Your task to perform on an android device: turn on the 24-hour format for clock Image 0: 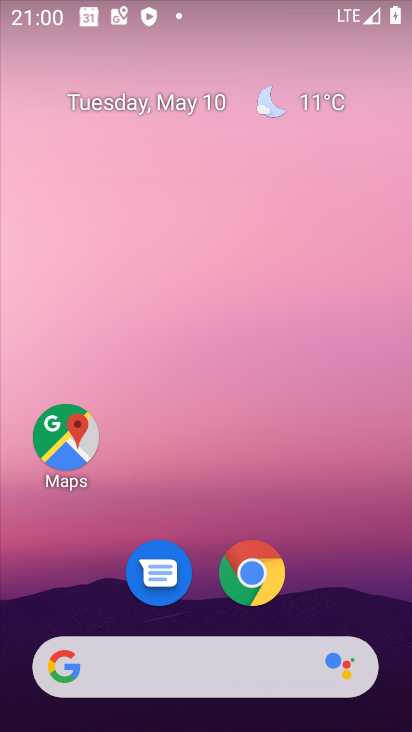
Step 0: drag from (327, 562) to (353, 8)
Your task to perform on an android device: turn on the 24-hour format for clock Image 1: 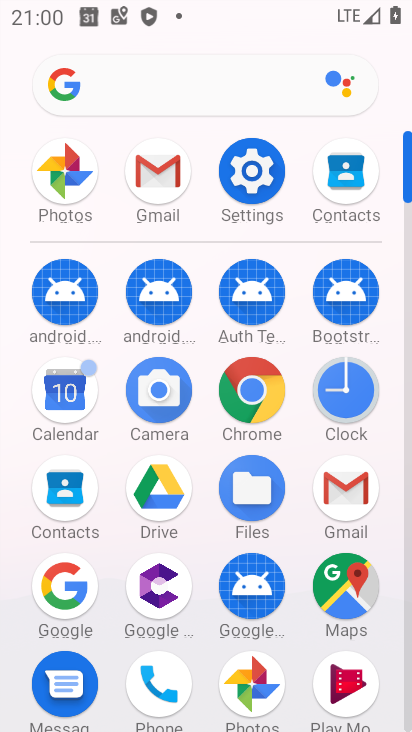
Step 1: click (346, 400)
Your task to perform on an android device: turn on the 24-hour format for clock Image 2: 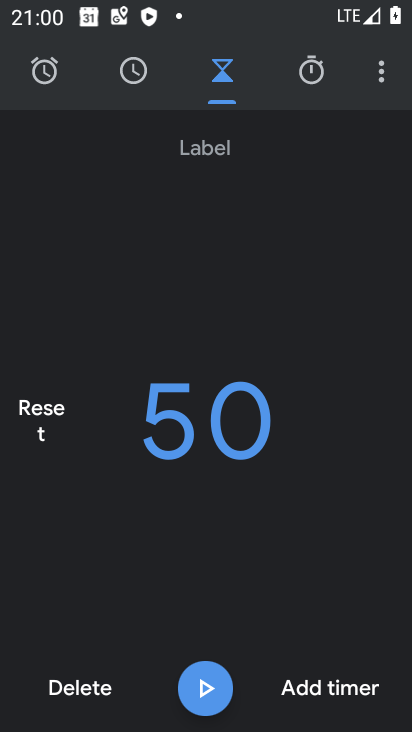
Step 2: click (387, 71)
Your task to perform on an android device: turn on the 24-hour format for clock Image 3: 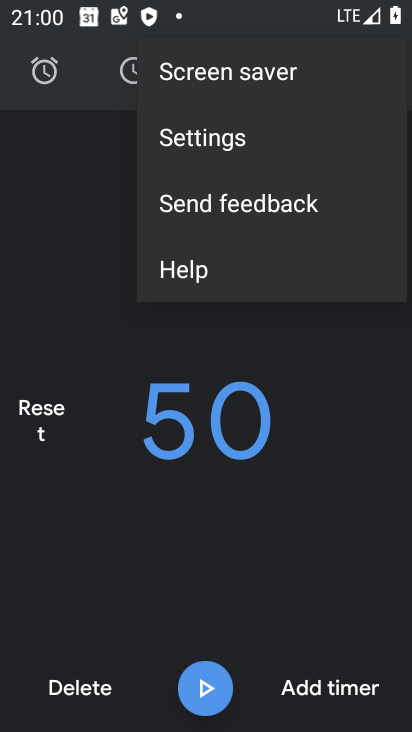
Step 3: click (195, 146)
Your task to perform on an android device: turn on the 24-hour format for clock Image 4: 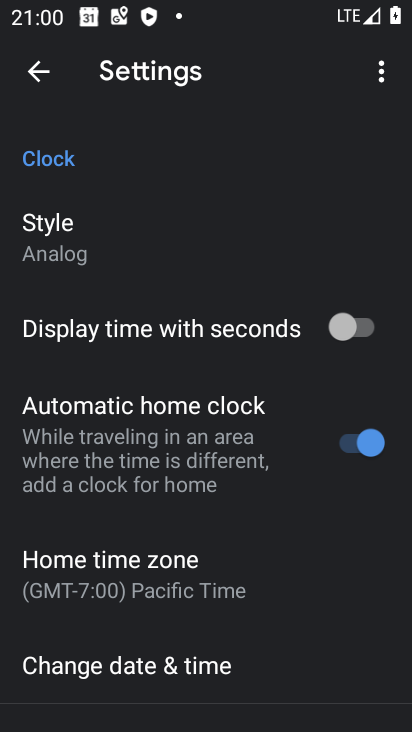
Step 4: click (135, 670)
Your task to perform on an android device: turn on the 24-hour format for clock Image 5: 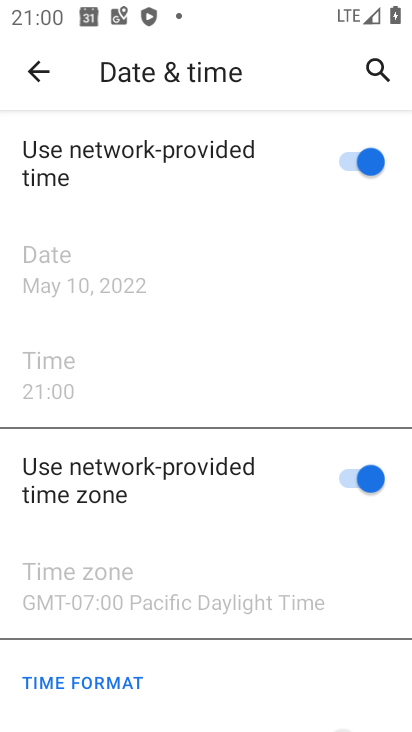
Step 5: task complete